Your task to perform on an android device: Open my contact list Image 0: 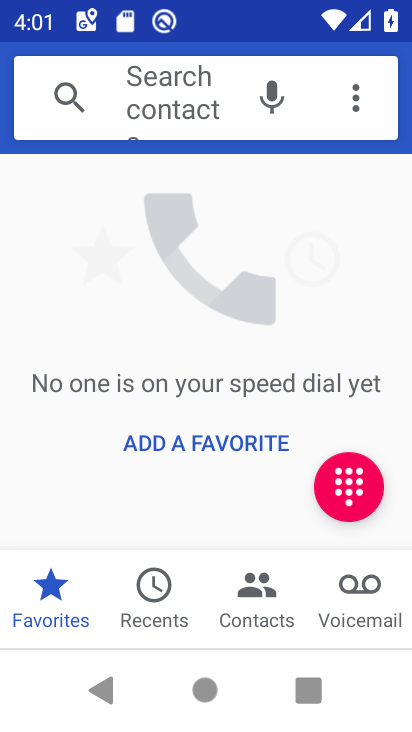
Step 0: press home button
Your task to perform on an android device: Open my contact list Image 1: 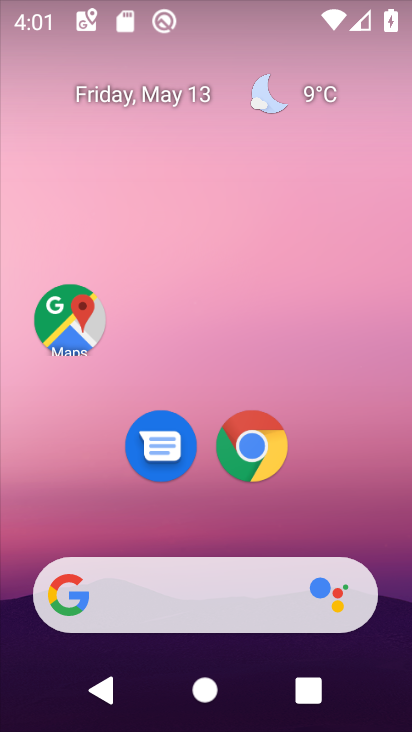
Step 1: drag from (156, 526) to (168, 37)
Your task to perform on an android device: Open my contact list Image 2: 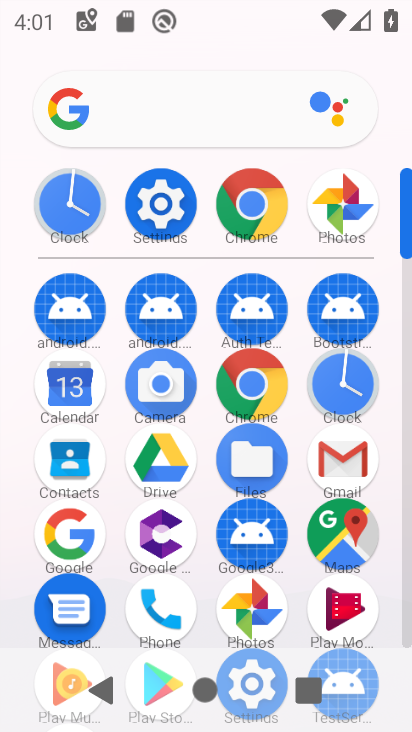
Step 2: click (79, 472)
Your task to perform on an android device: Open my contact list Image 3: 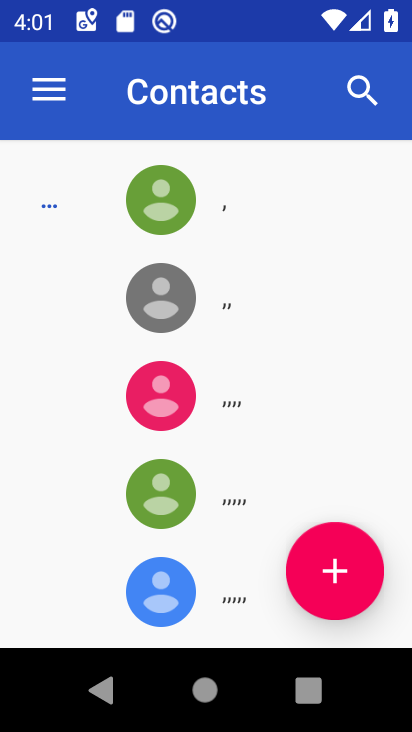
Step 3: task complete